Your task to perform on an android device: open the mobile data screen to see how much data has been used Image 0: 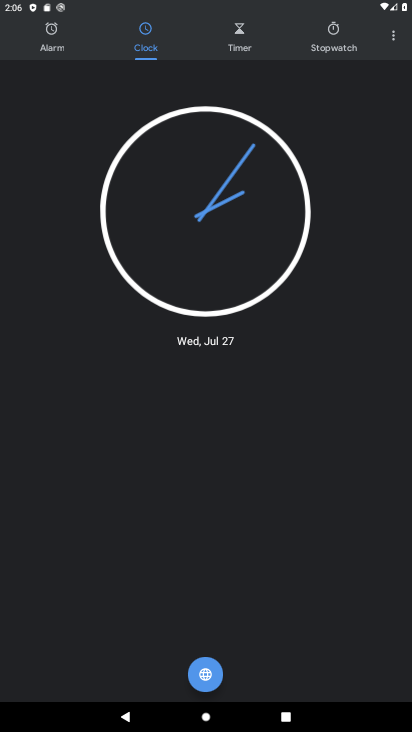
Step 0: press home button
Your task to perform on an android device: open the mobile data screen to see how much data has been used Image 1: 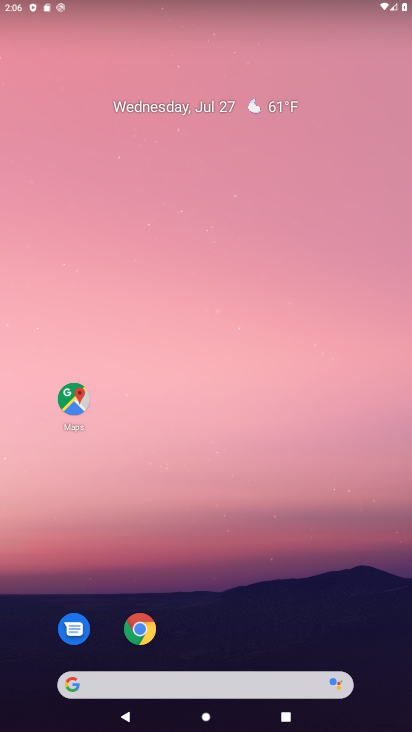
Step 1: drag from (189, 683) to (325, 11)
Your task to perform on an android device: open the mobile data screen to see how much data has been used Image 2: 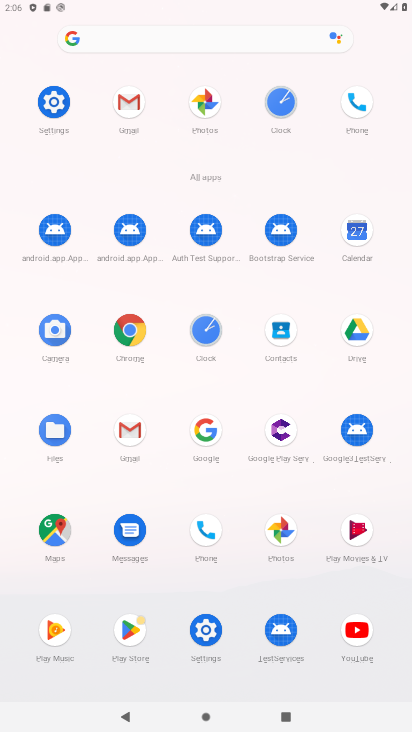
Step 2: click (55, 102)
Your task to perform on an android device: open the mobile data screen to see how much data has been used Image 3: 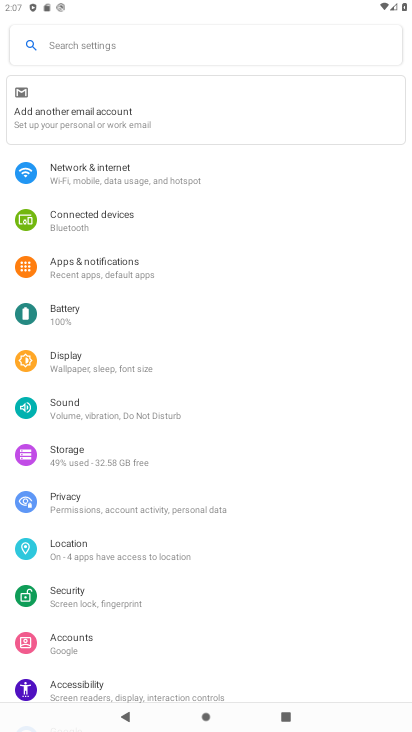
Step 3: click (67, 170)
Your task to perform on an android device: open the mobile data screen to see how much data has been used Image 4: 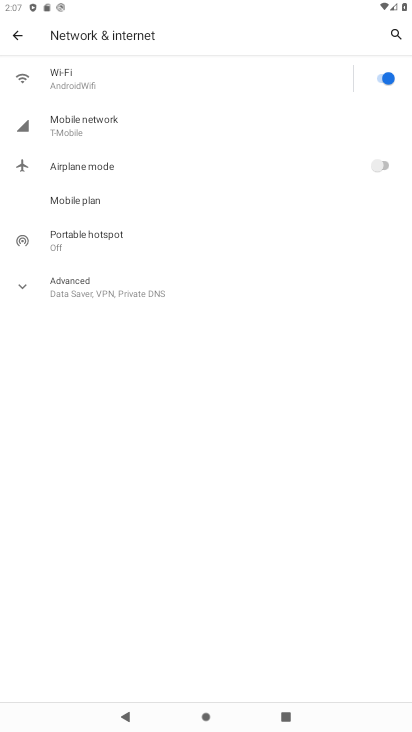
Step 4: click (78, 124)
Your task to perform on an android device: open the mobile data screen to see how much data has been used Image 5: 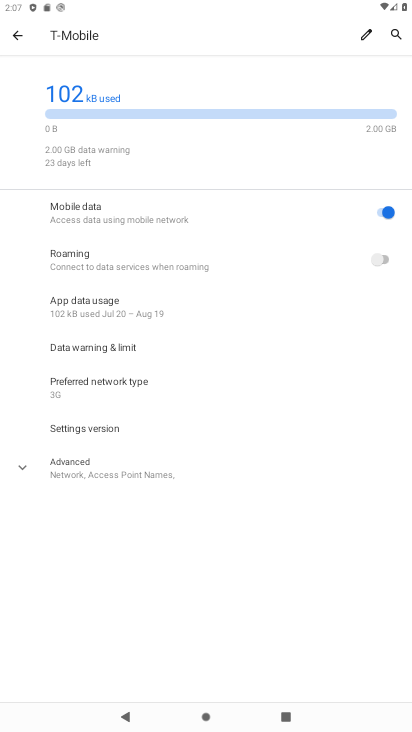
Step 5: task complete